Your task to perform on an android device: Add "dell xps" to the cart on amazon, then select checkout. Image 0: 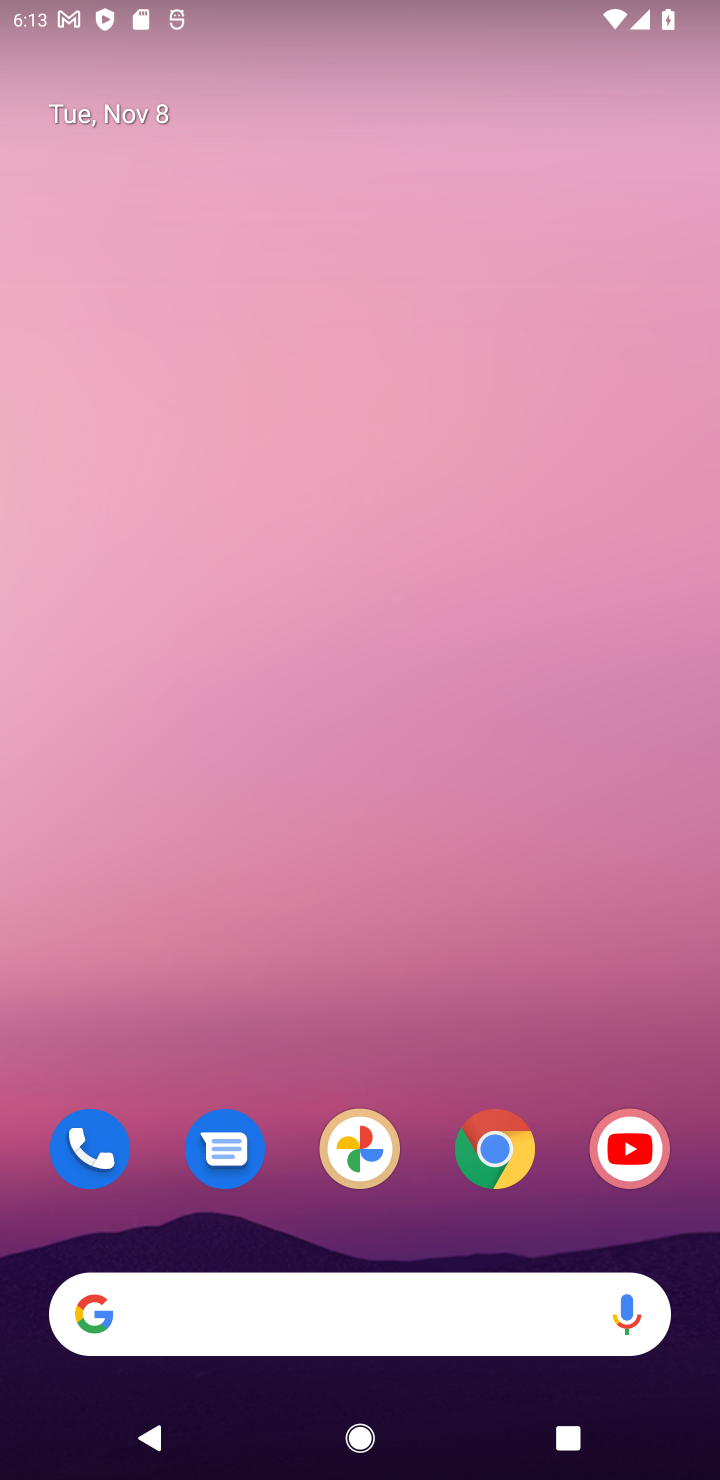
Step 0: click (493, 1143)
Your task to perform on an android device: Add "dell xps" to the cart on amazon, then select checkout. Image 1: 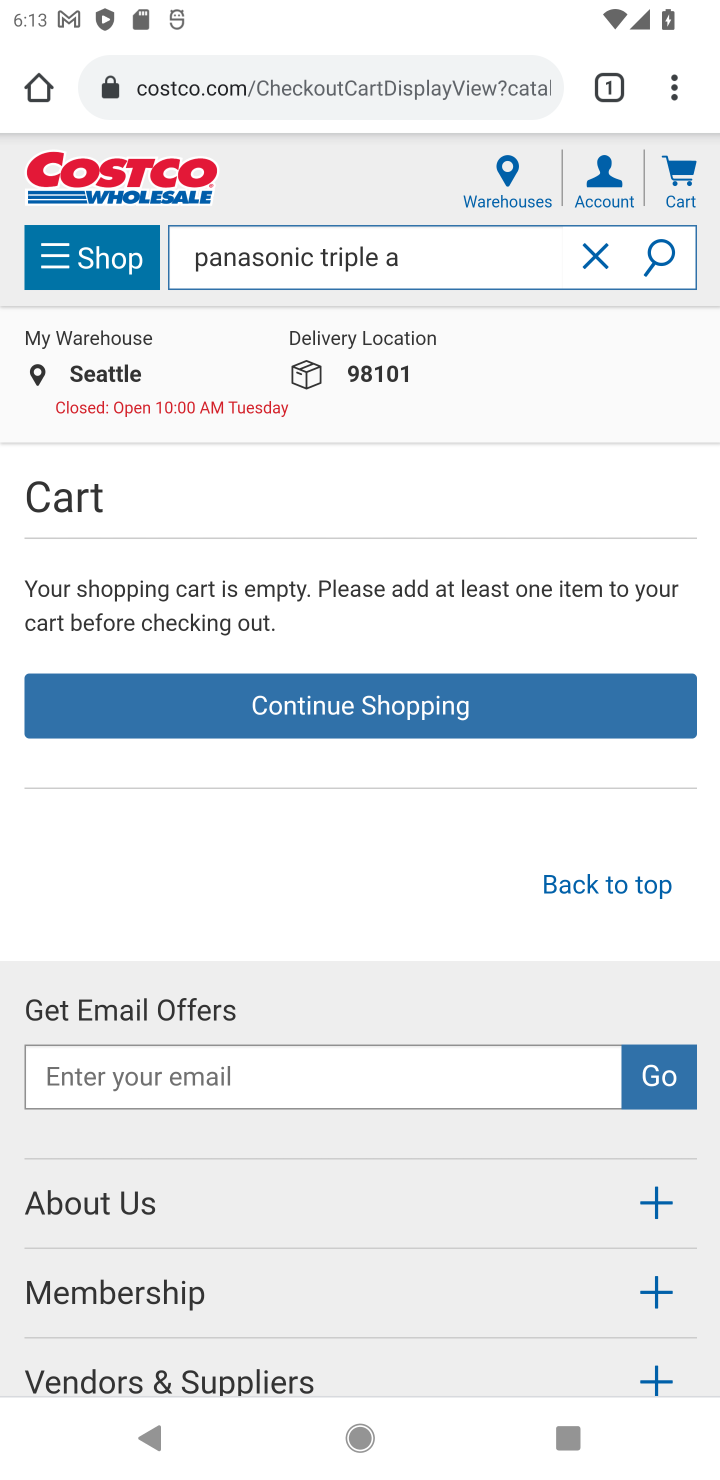
Step 1: click (454, 88)
Your task to perform on an android device: Add "dell xps" to the cart on amazon, then select checkout. Image 2: 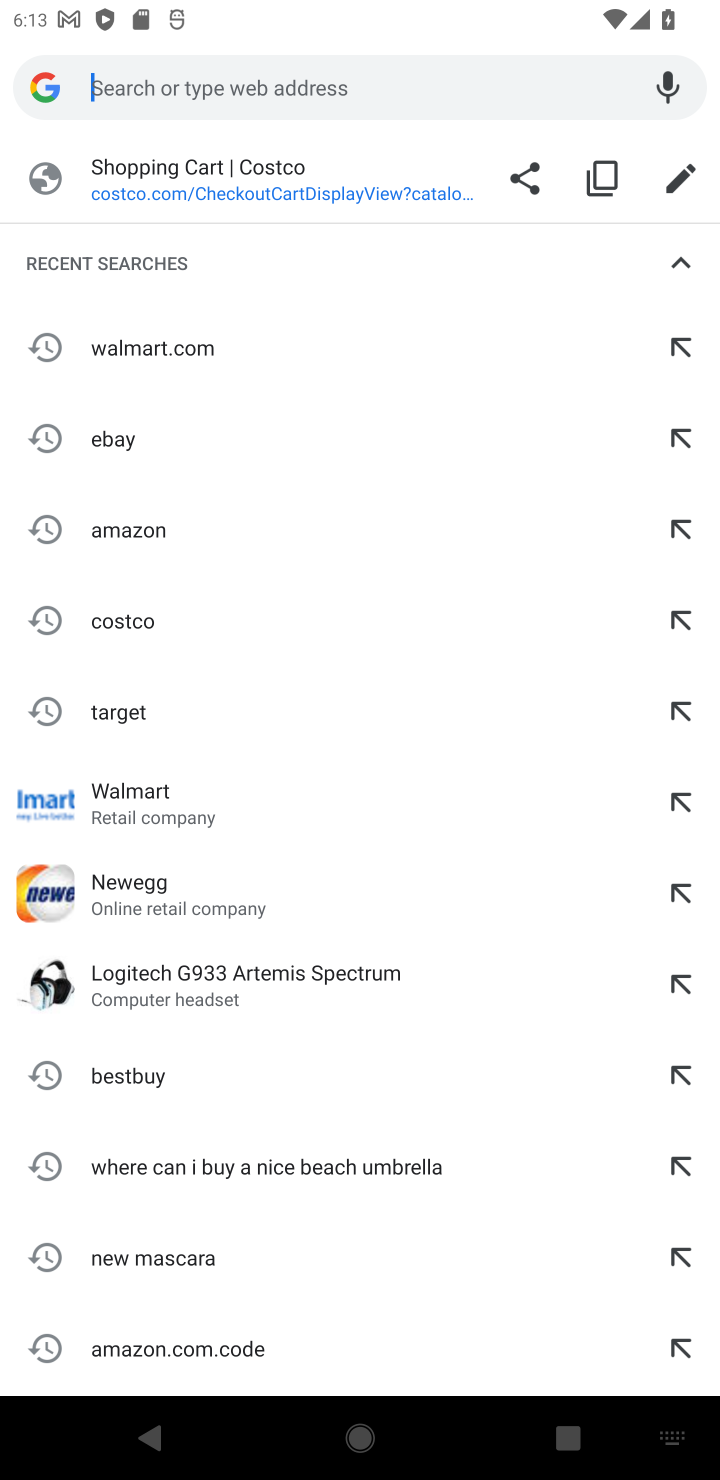
Step 2: click (162, 528)
Your task to perform on an android device: Add "dell xps" to the cart on amazon, then select checkout. Image 3: 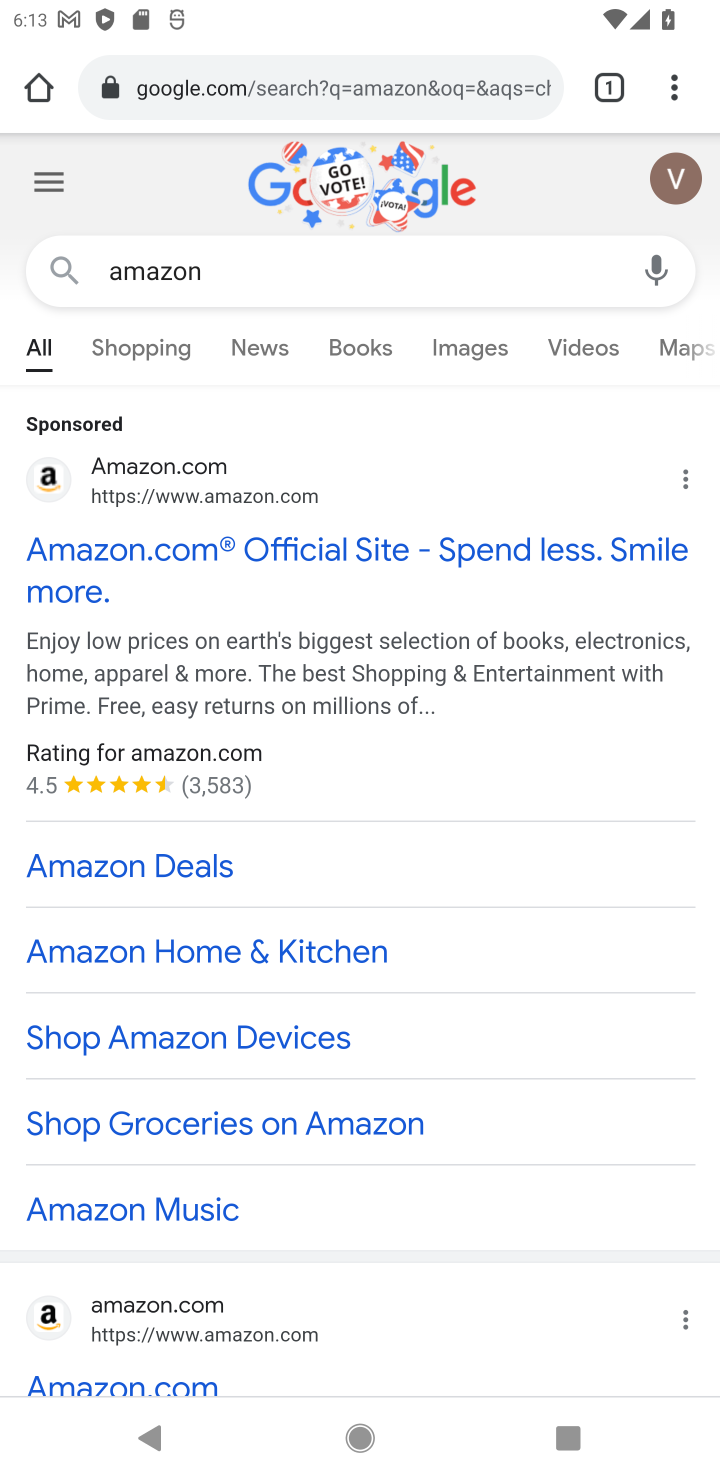
Step 3: click (236, 488)
Your task to perform on an android device: Add "dell xps" to the cart on amazon, then select checkout. Image 4: 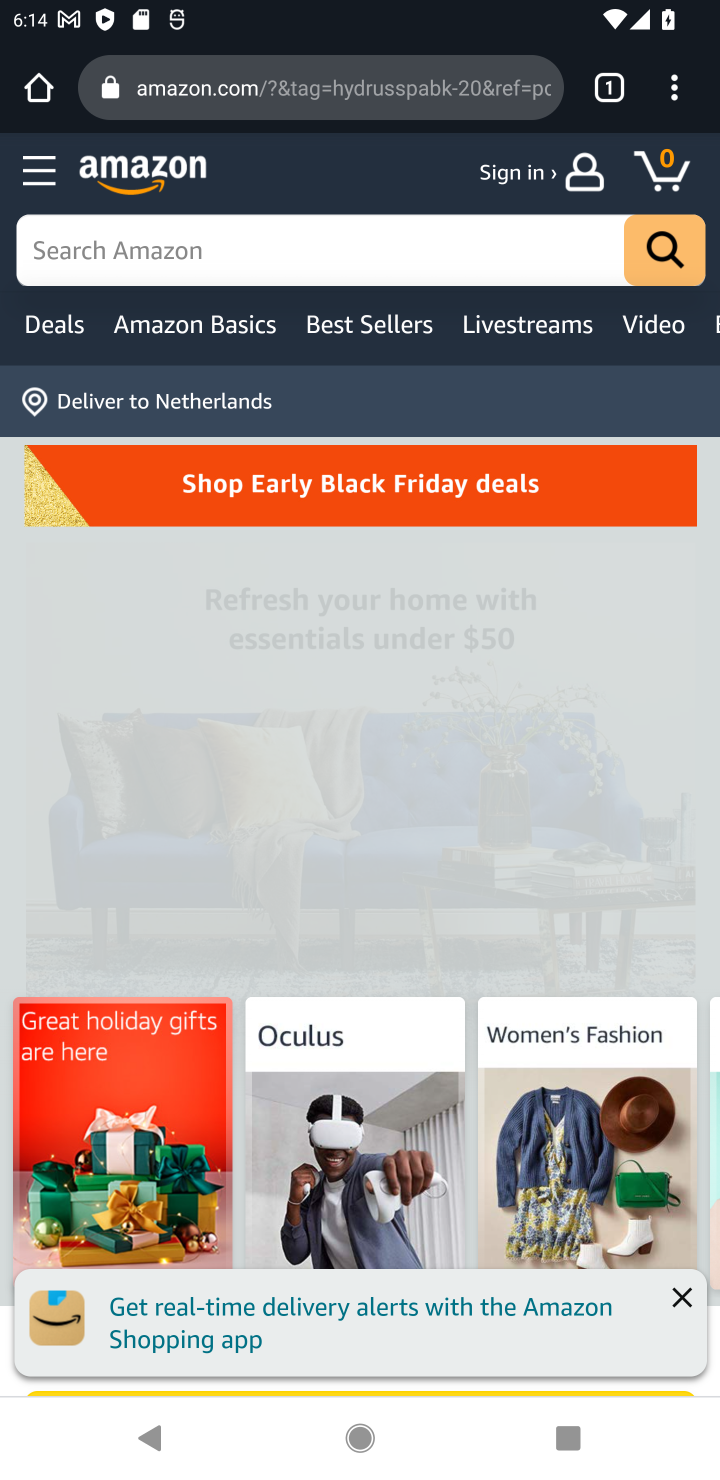
Step 4: click (534, 236)
Your task to perform on an android device: Add "dell xps" to the cart on amazon, then select checkout. Image 5: 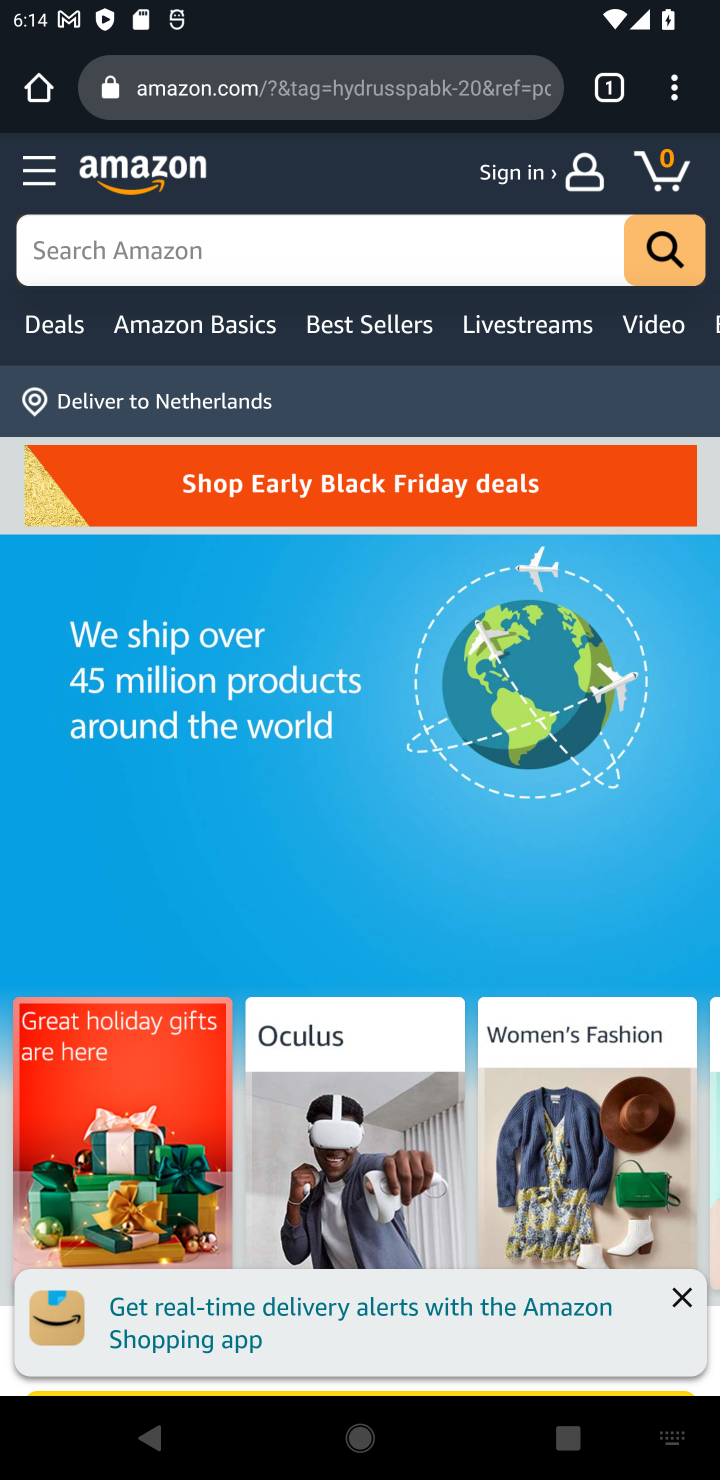
Step 5: type "dell xps"
Your task to perform on an android device: Add "dell xps" to the cart on amazon, then select checkout. Image 6: 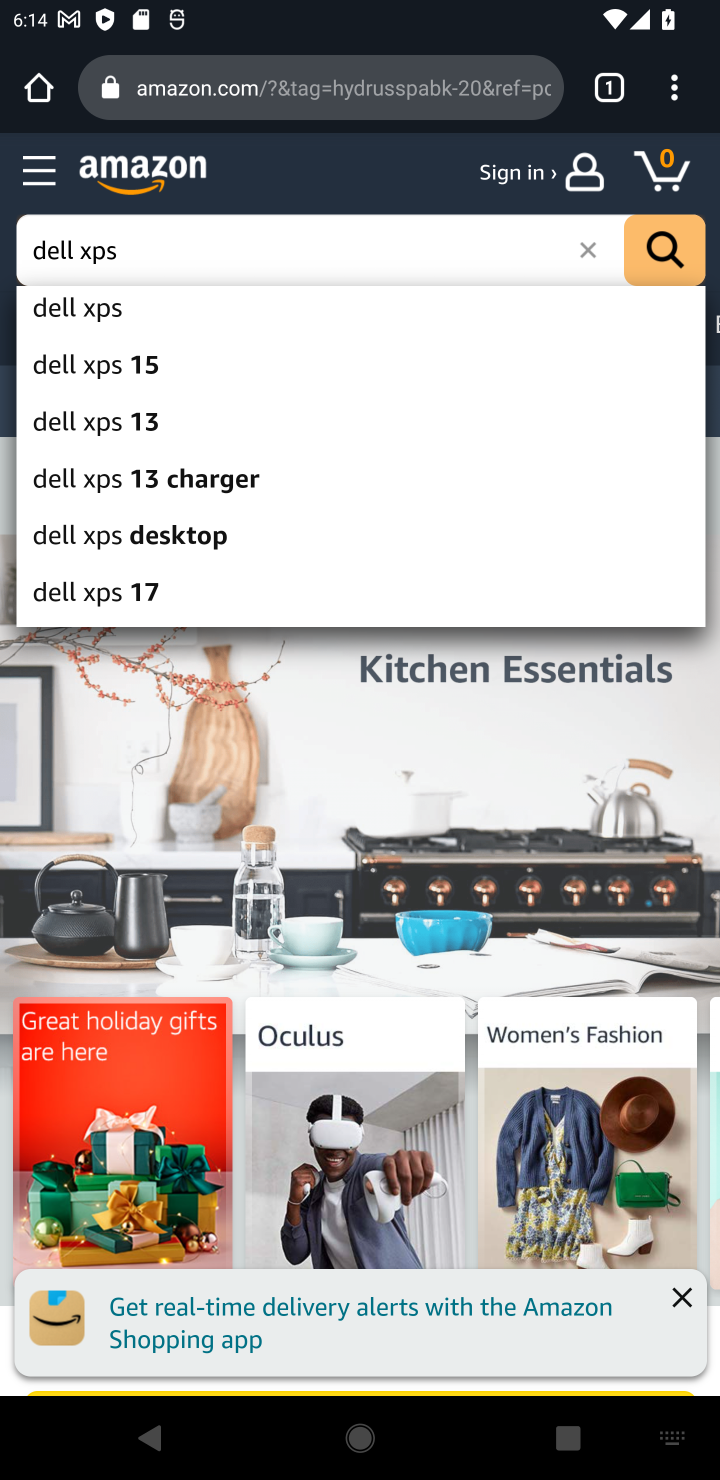
Step 6: click (89, 301)
Your task to perform on an android device: Add "dell xps" to the cart on amazon, then select checkout. Image 7: 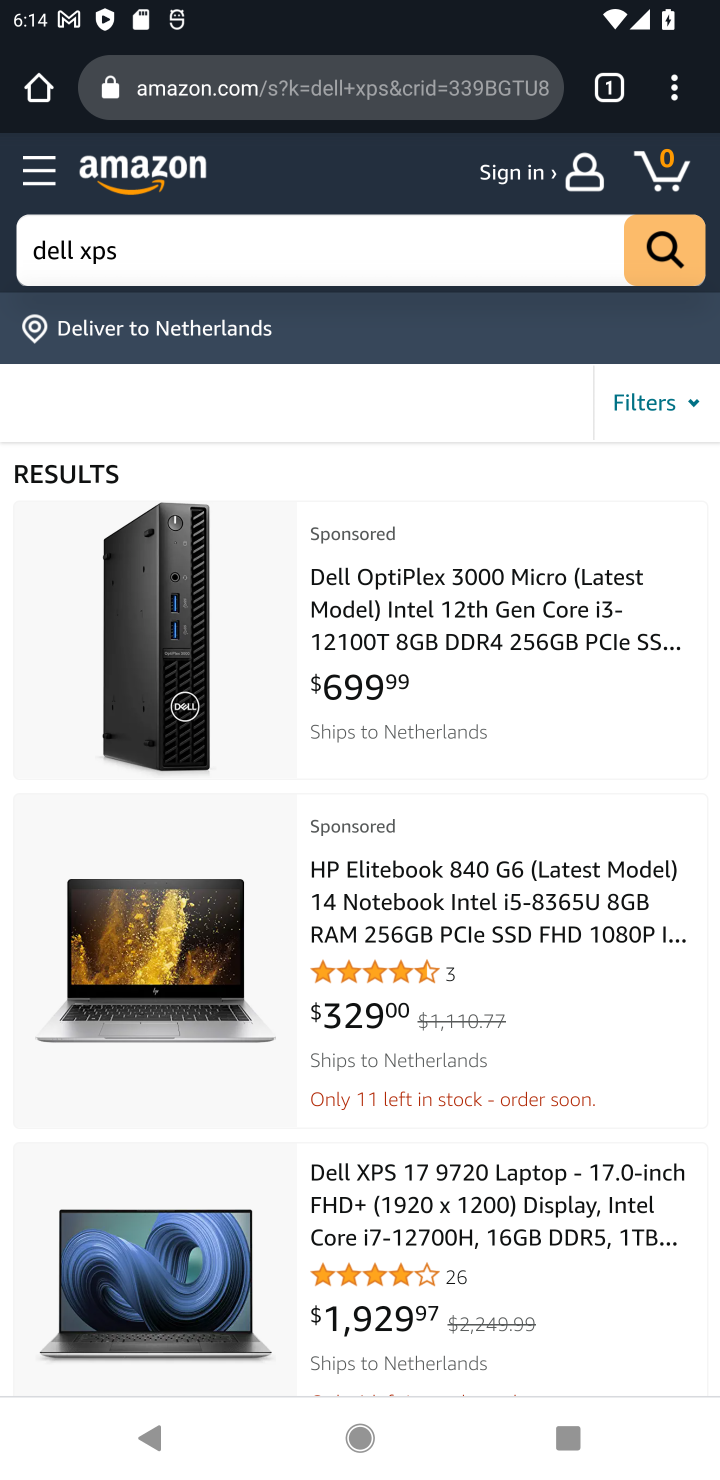
Step 7: drag from (547, 1135) to (525, 805)
Your task to perform on an android device: Add "dell xps" to the cart on amazon, then select checkout. Image 8: 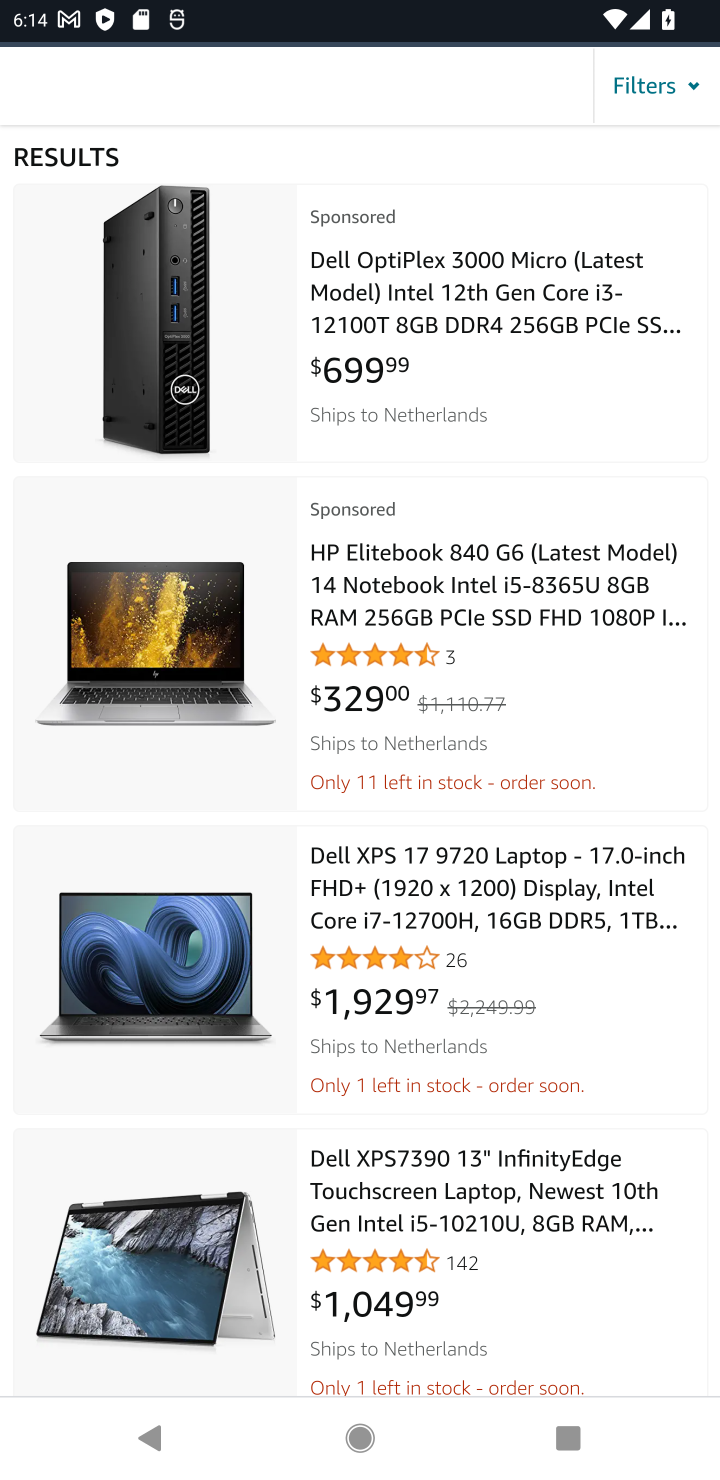
Step 8: click (166, 931)
Your task to perform on an android device: Add "dell xps" to the cart on amazon, then select checkout. Image 9: 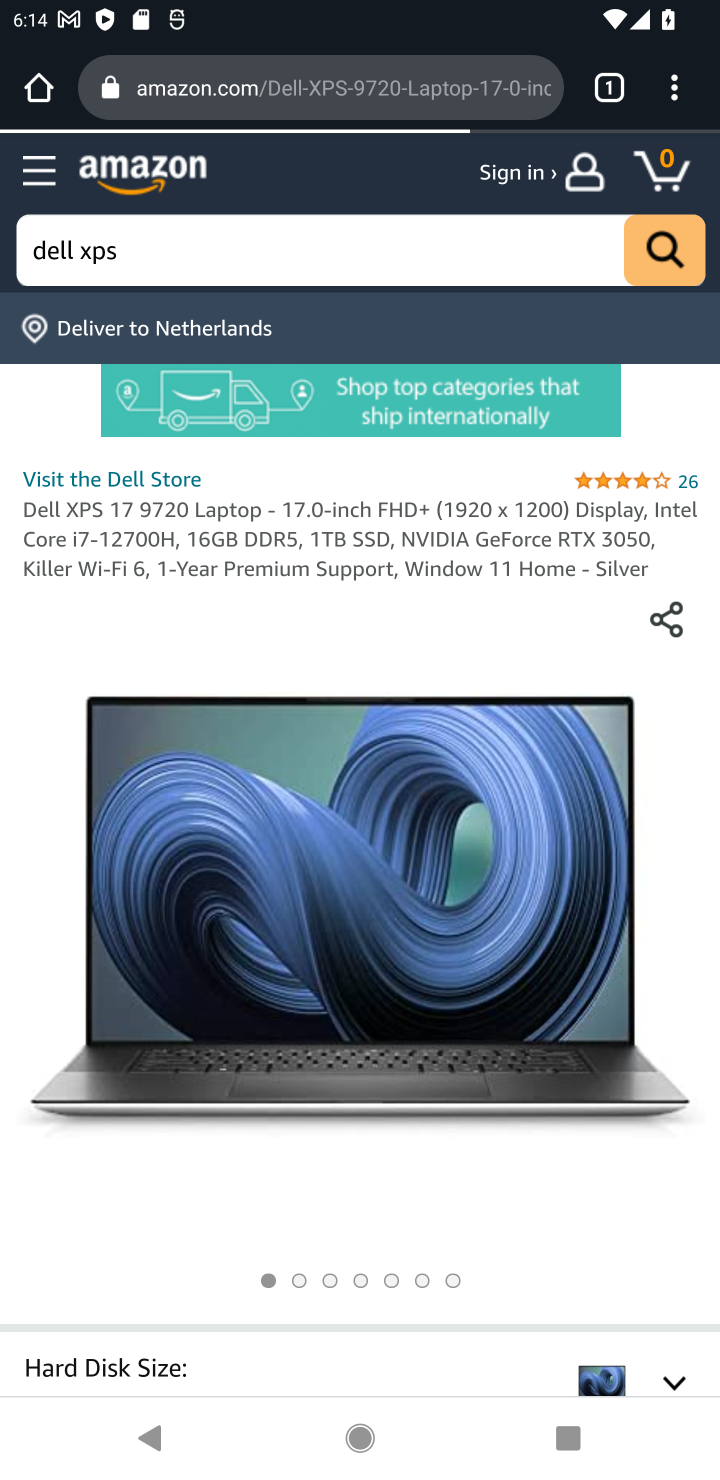
Step 9: drag from (506, 713) to (548, 542)
Your task to perform on an android device: Add "dell xps" to the cart on amazon, then select checkout. Image 10: 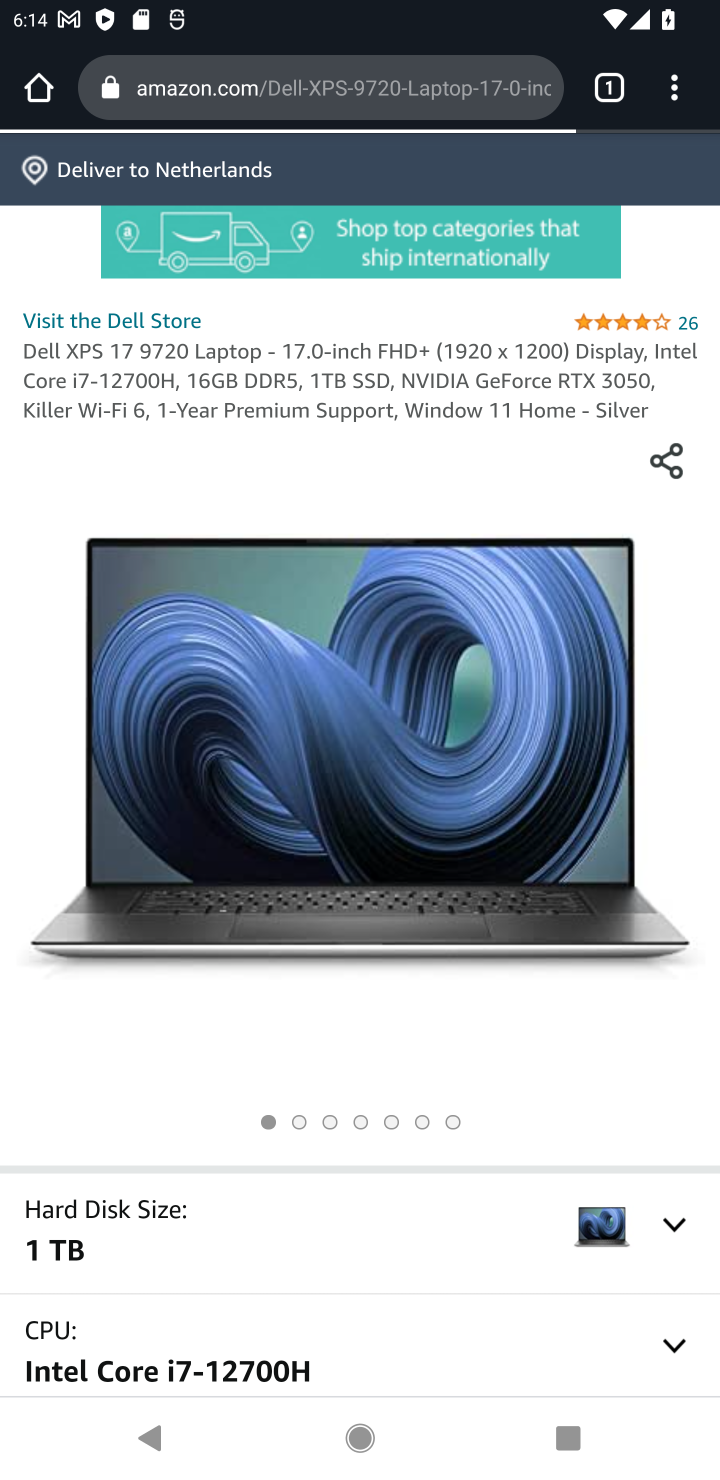
Step 10: drag from (575, 1105) to (619, 574)
Your task to perform on an android device: Add "dell xps" to the cart on amazon, then select checkout. Image 11: 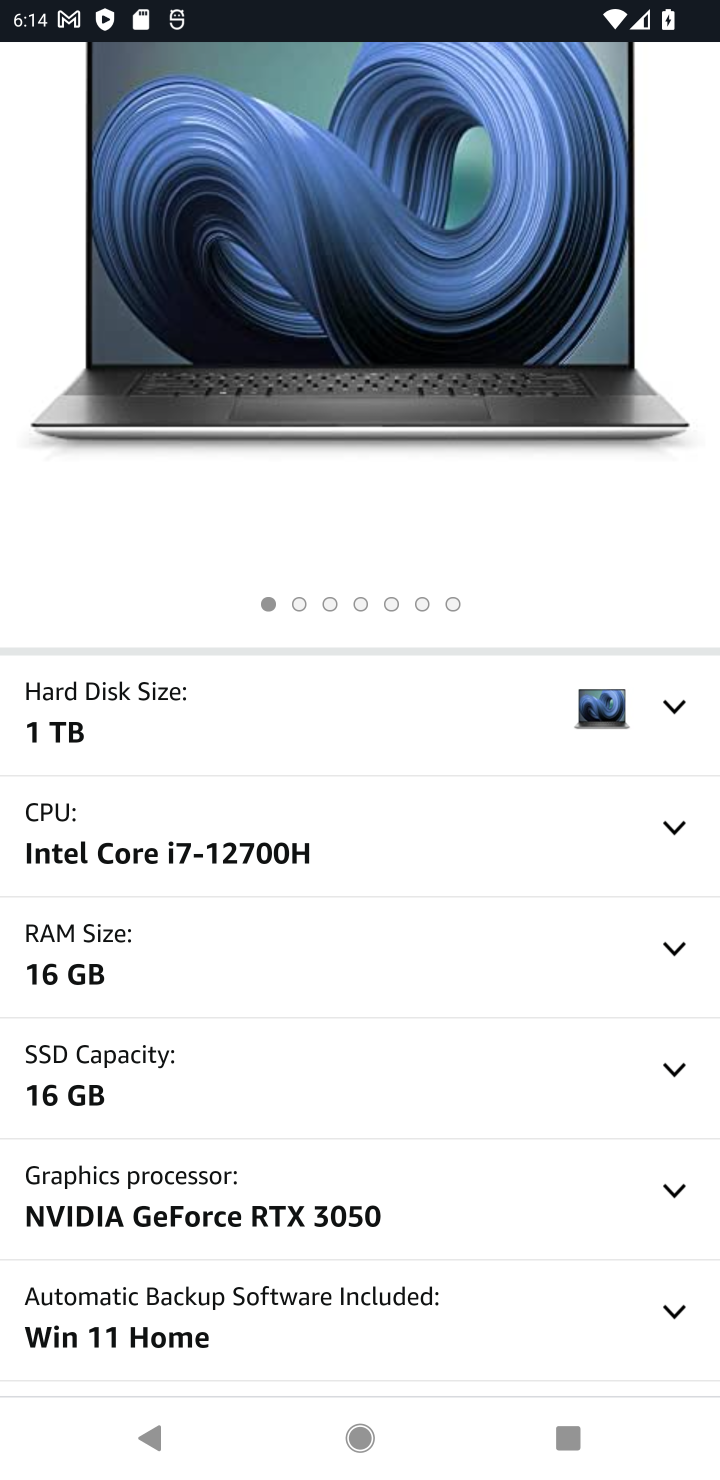
Step 11: drag from (529, 758) to (575, 503)
Your task to perform on an android device: Add "dell xps" to the cart on amazon, then select checkout. Image 12: 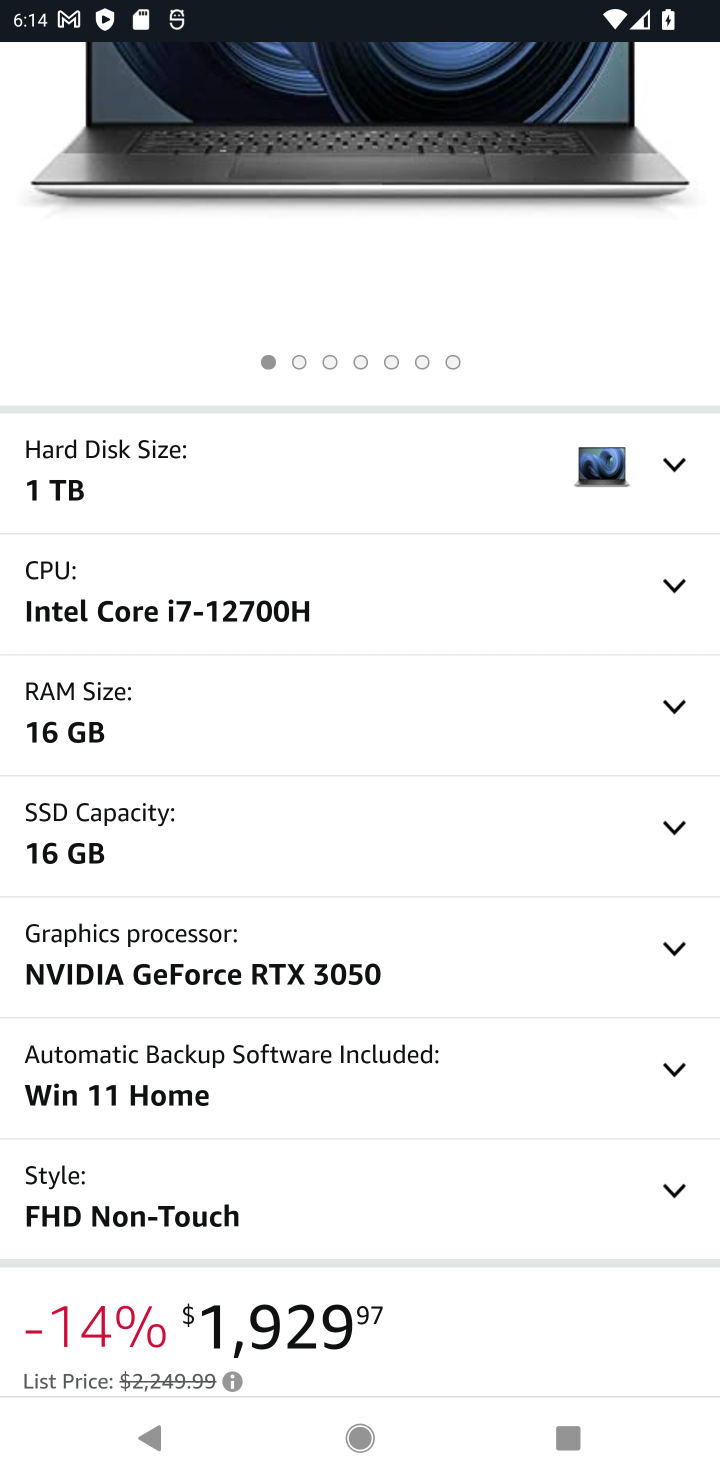
Step 12: drag from (555, 1041) to (498, 443)
Your task to perform on an android device: Add "dell xps" to the cart on amazon, then select checkout. Image 13: 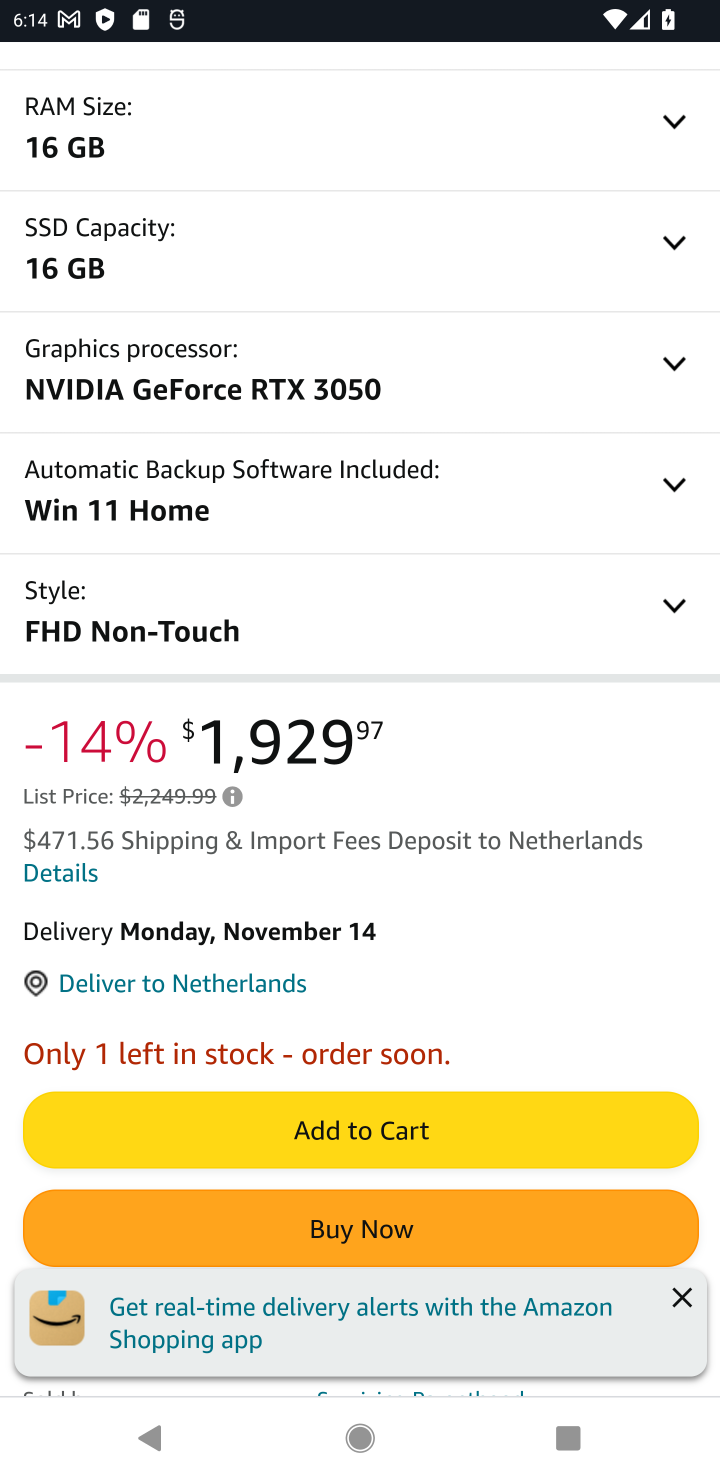
Step 13: click (358, 1120)
Your task to perform on an android device: Add "dell xps" to the cart on amazon, then select checkout. Image 14: 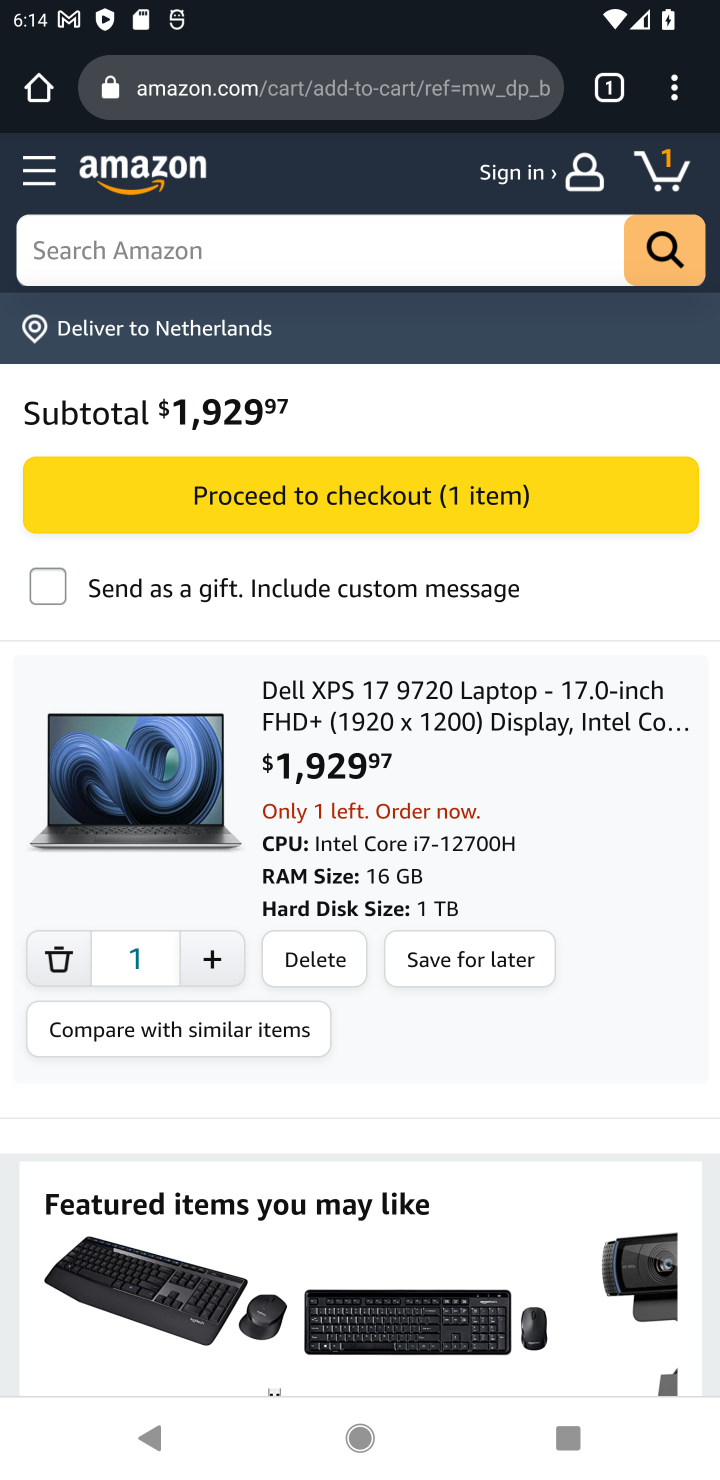
Step 14: click (332, 496)
Your task to perform on an android device: Add "dell xps" to the cart on amazon, then select checkout. Image 15: 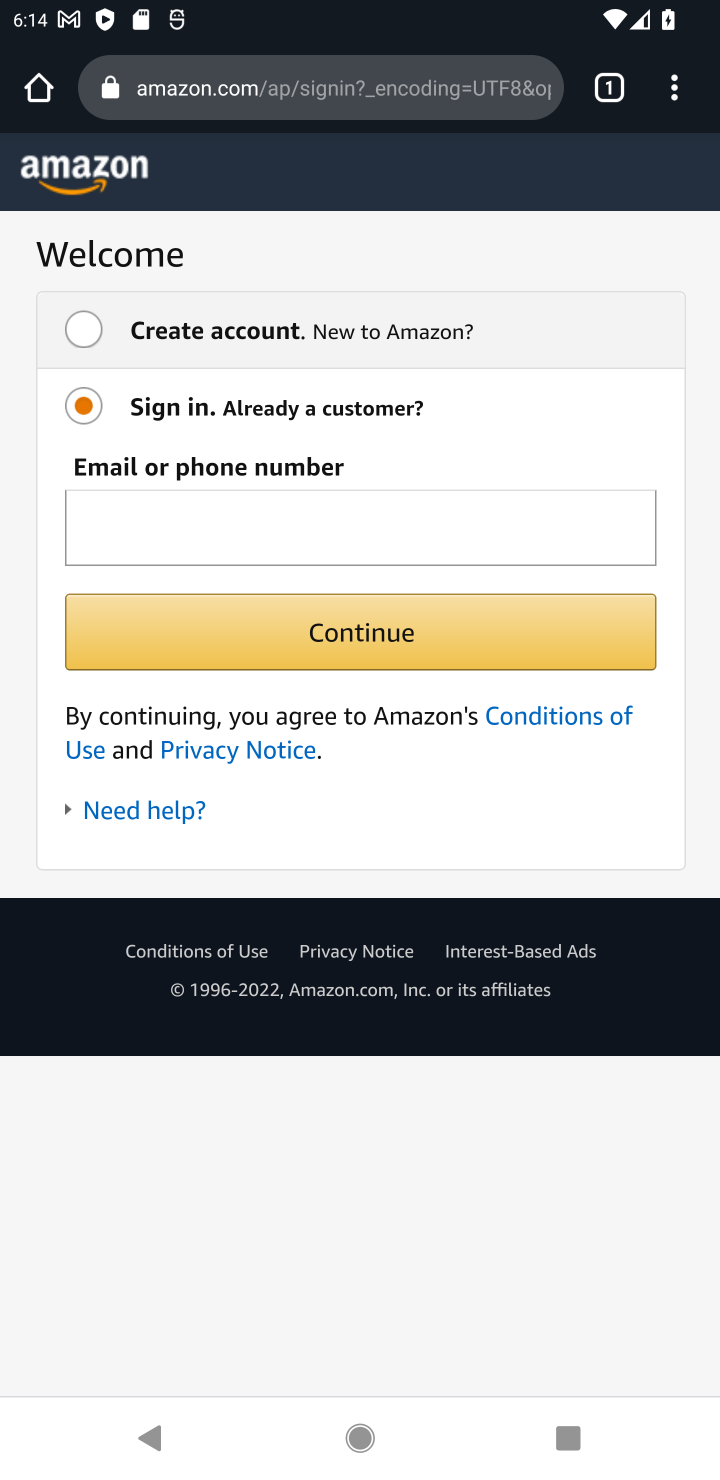
Step 15: task complete